Your task to perform on an android device: change the clock display to show seconds Image 0: 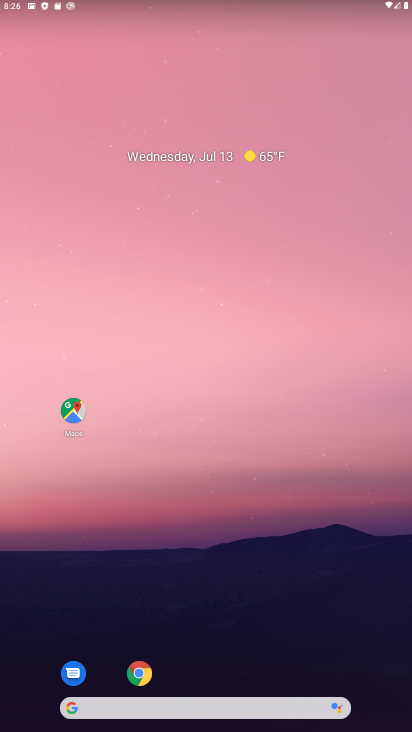
Step 0: drag from (190, 716) to (237, 228)
Your task to perform on an android device: change the clock display to show seconds Image 1: 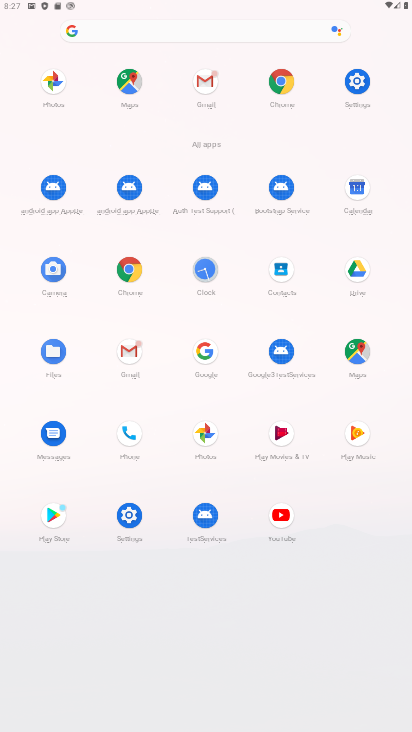
Step 1: click (206, 267)
Your task to perform on an android device: change the clock display to show seconds Image 2: 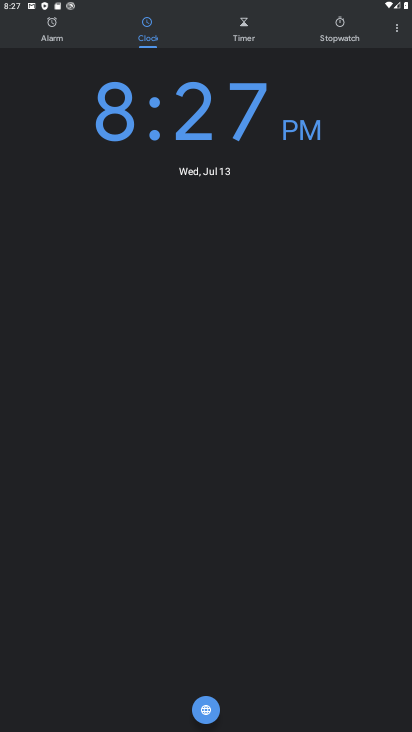
Step 2: click (400, 32)
Your task to perform on an android device: change the clock display to show seconds Image 3: 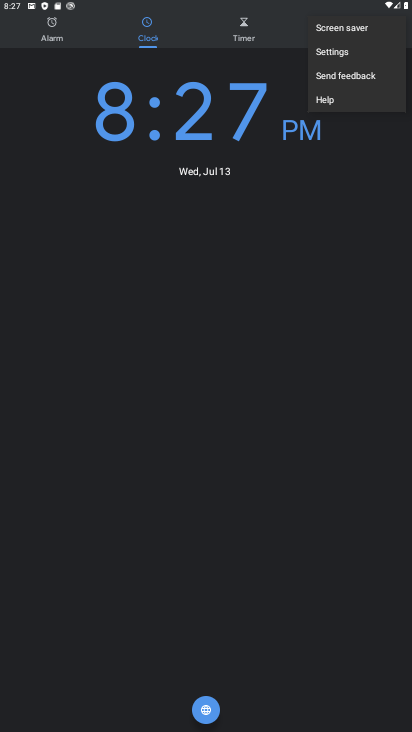
Step 3: click (346, 53)
Your task to perform on an android device: change the clock display to show seconds Image 4: 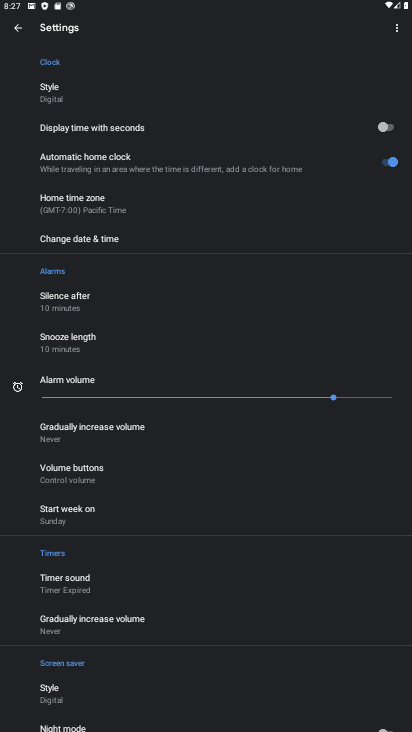
Step 4: click (384, 127)
Your task to perform on an android device: change the clock display to show seconds Image 5: 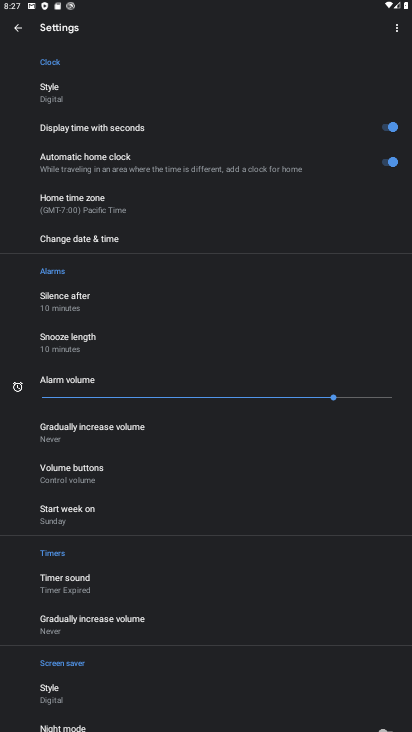
Step 5: task complete